Your task to perform on an android device: Search for Mexican restaurants on Maps Image 0: 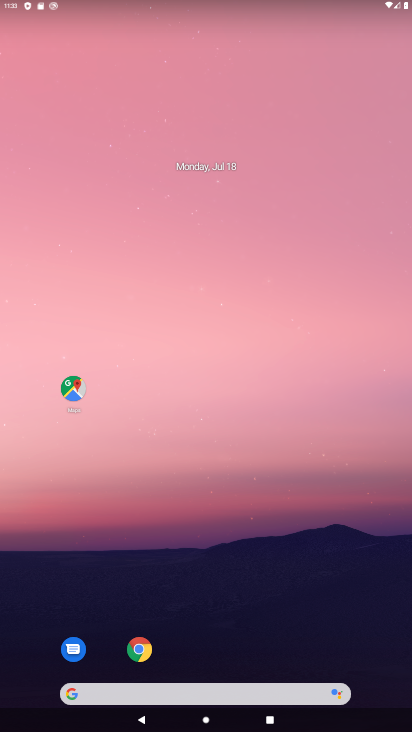
Step 0: press home button
Your task to perform on an android device: Search for Mexican restaurants on Maps Image 1: 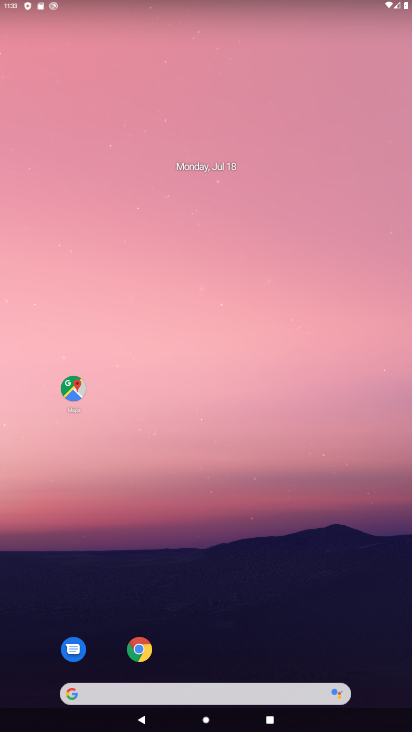
Step 1: click (72, 388)
Your task to perform on an android device: Search for Mexican restaurants on Maps Image 2: 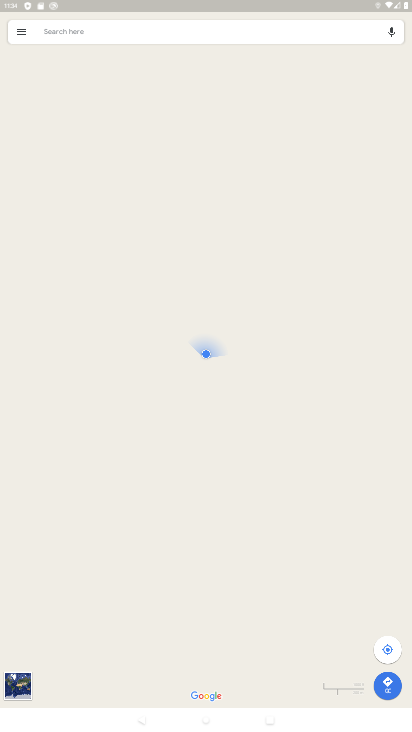
Step 2: click (112, 26)
Your task to perform on an android device: Search for Mexican restaurants on Maps Image 3: 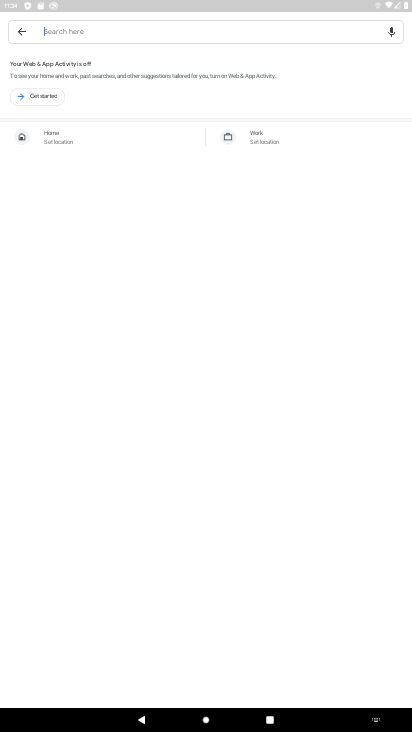
Step 3: type "Mexican restaurants"
Your task to perform on an android device: Search for Mexican restaurants on Maps Image 4: 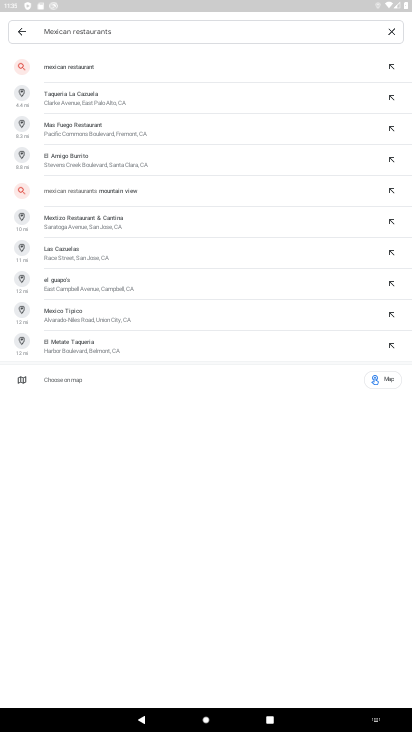
Step 4: click (69, 63)
Your task to perform on an android device: Search for Mexican restaurants on Maps Image 5: 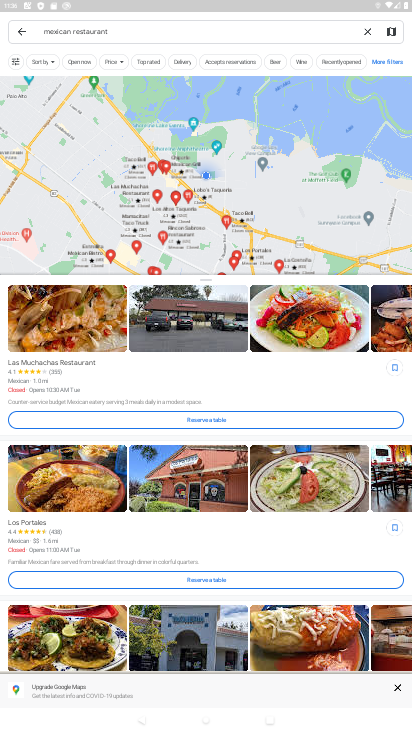
Step 5: task complete